Your task to perform on an android device: Add "razer blackwidow" to the cart on bestbuy.com, then select checkout. Image 0: 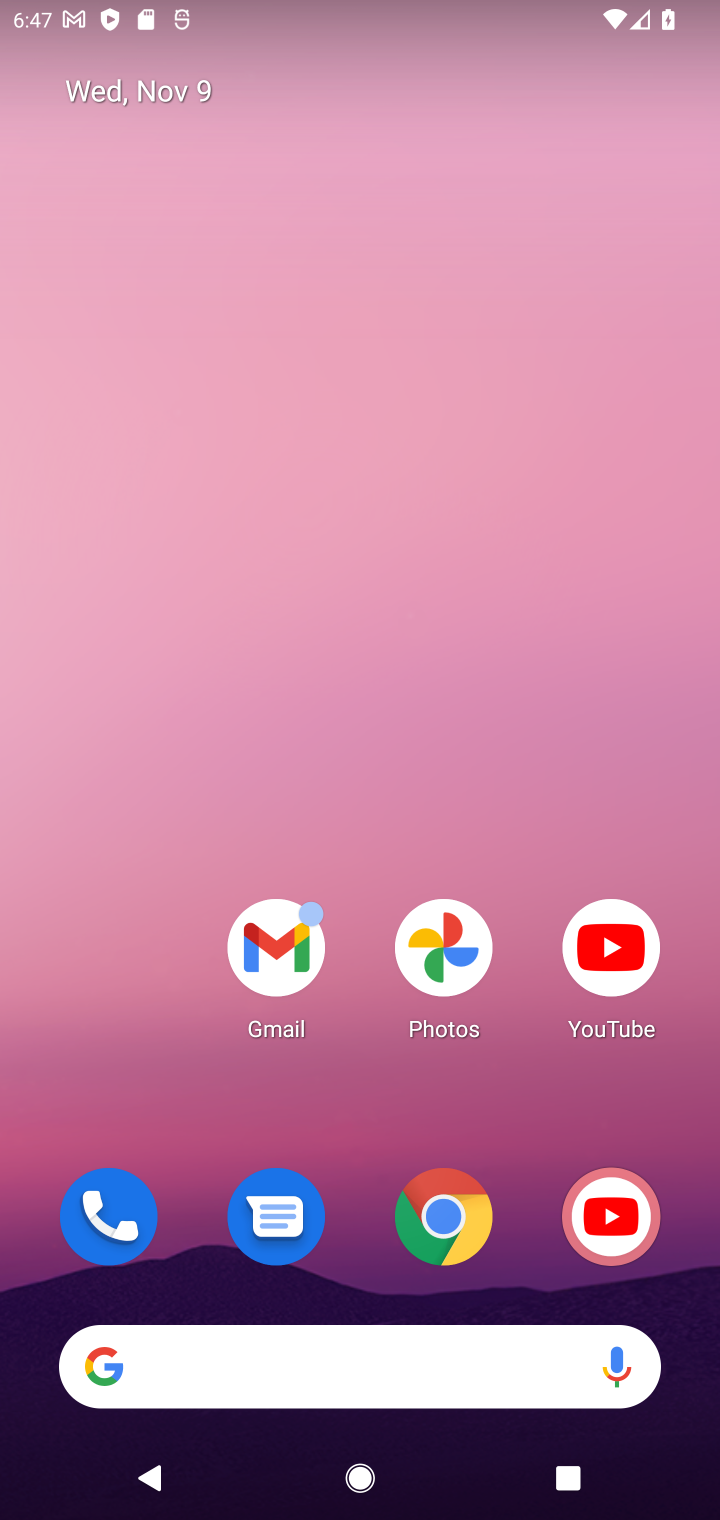
Step 0: drag from (387, 560) to (394, 107)
Your task to perform on an android device: Add "razer blackwidow" to the cart on bestbuy.com, then select checkout. Image 1: 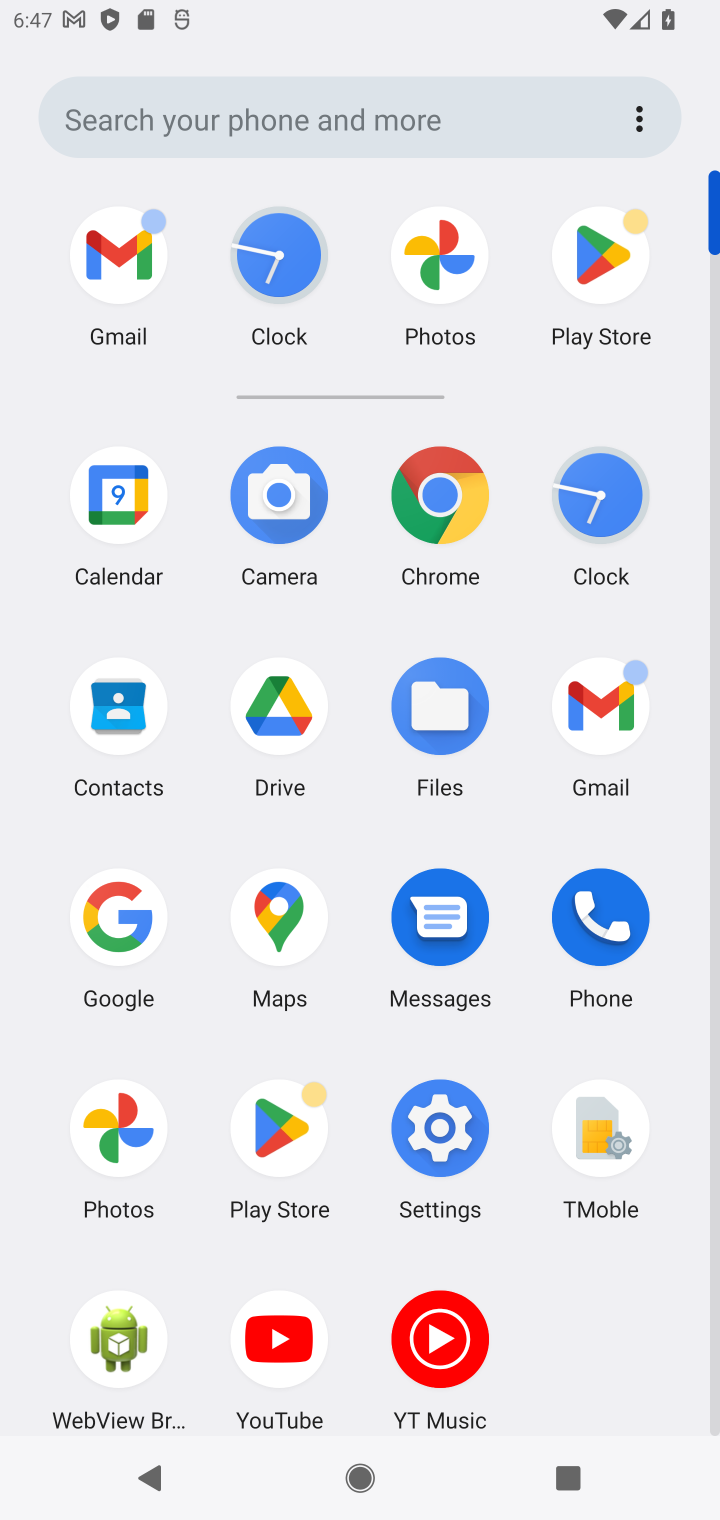
Step 1: click (434, 497)
Your task to perform on an android device: Add "razer blackwidow" to the cart on bestbuy.com, then select checkout. Image 2: 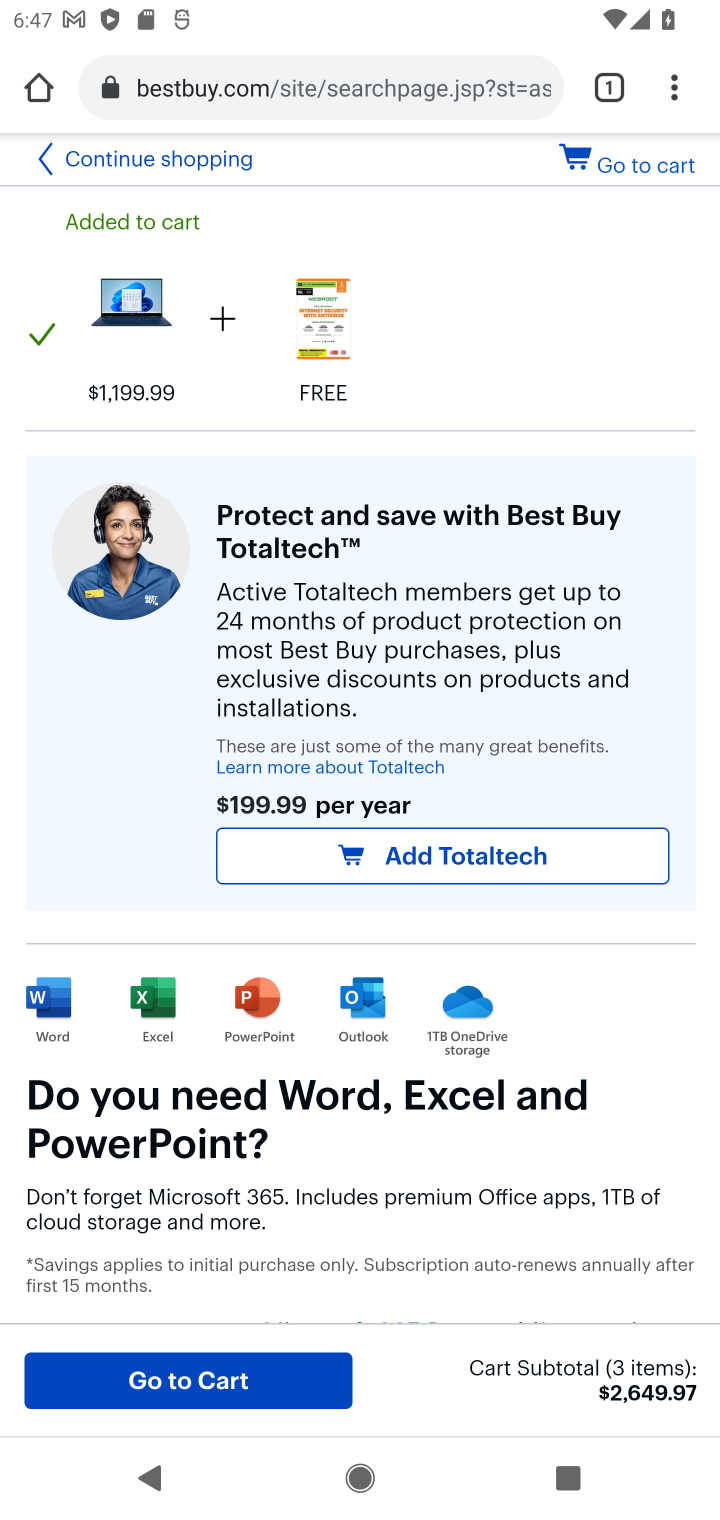
Step 2: click (226, 86)
Your task to perform on an android device: Add "razer blackwidow" to the cart on bestbuy.com, then select checkout. Image 3: 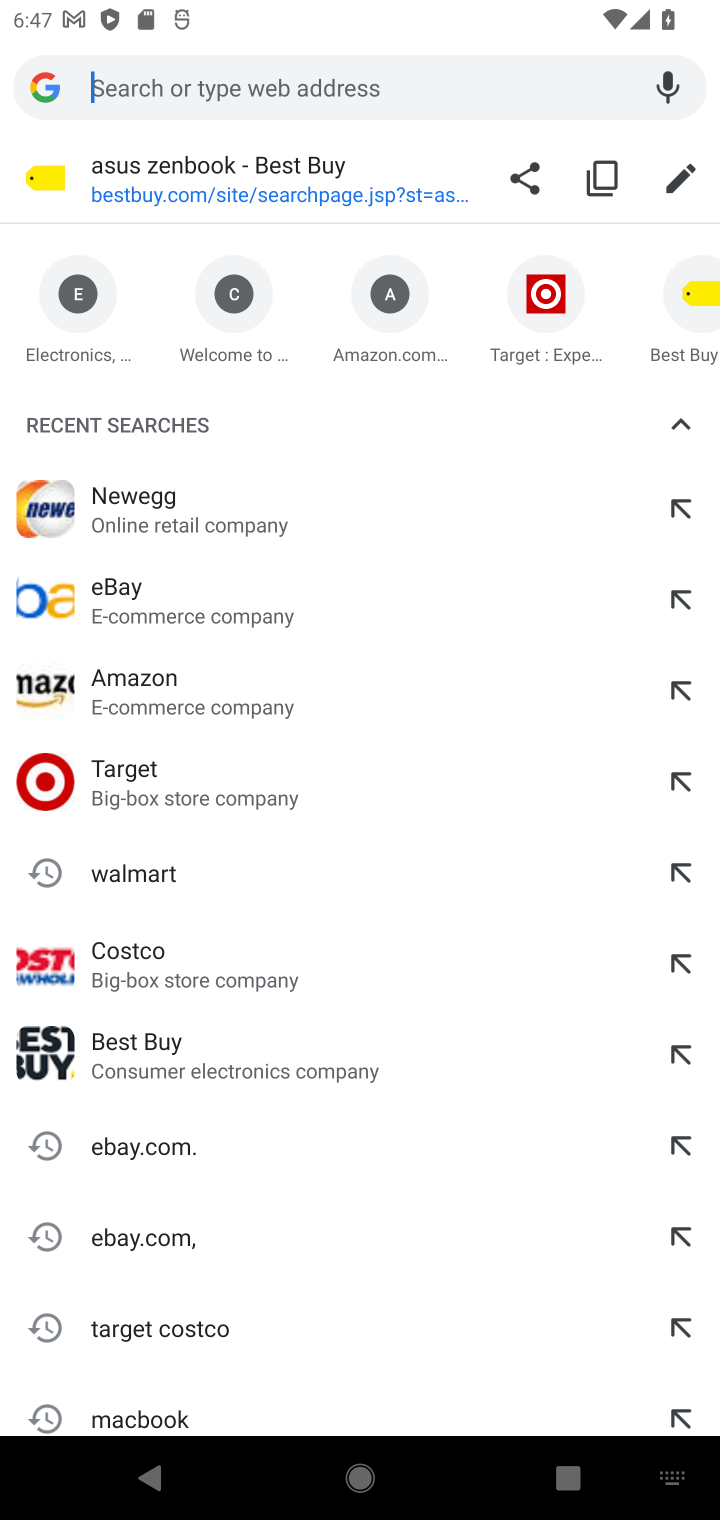
Step 3: type "bestbuy.com"
Your task to perform on an android device: Add "razer blackwidow" to the cart on bestbuy.com, then select checkout. Image 4: 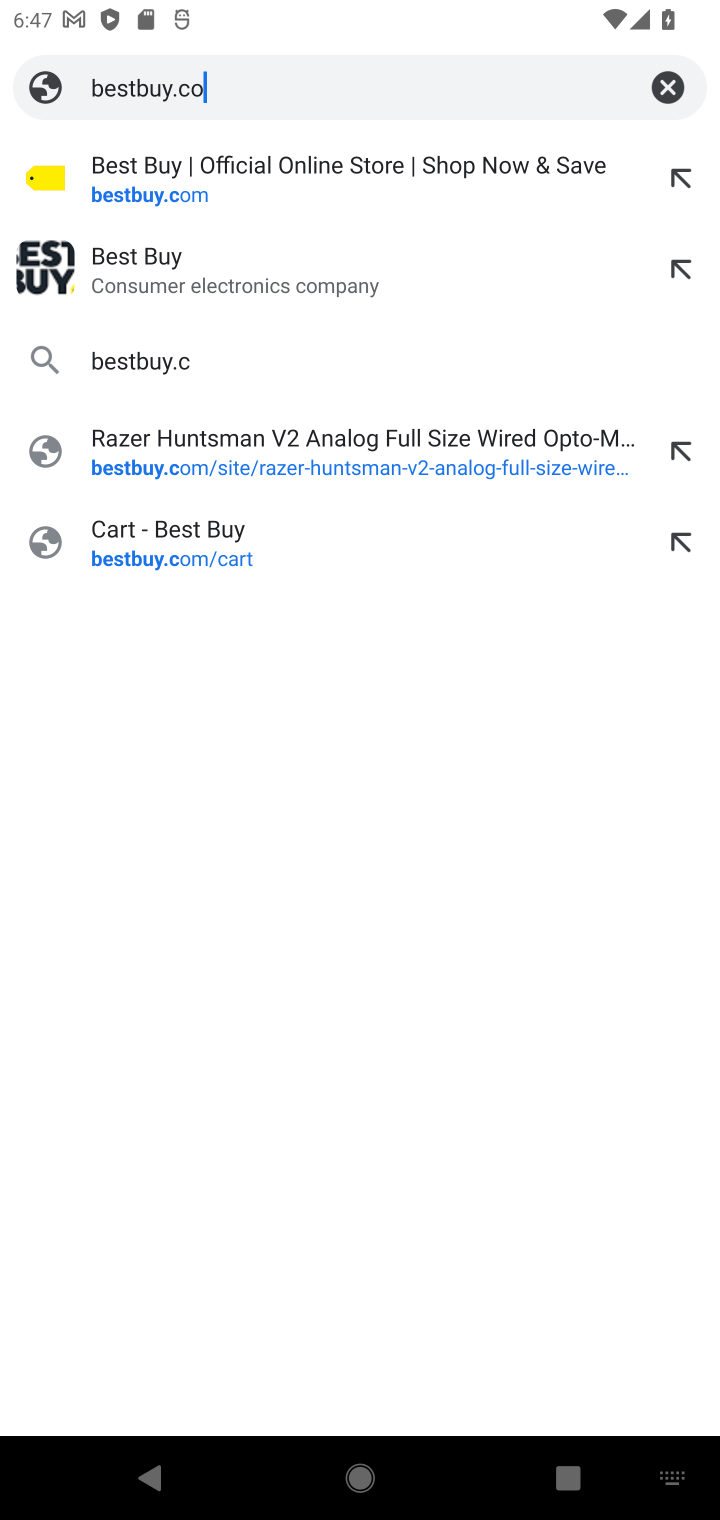
Step 4: press enter
Your task to perform on an android device: Add "razer blackwidow" to the cart on bestbuy.com, then select checkout. Image 5: 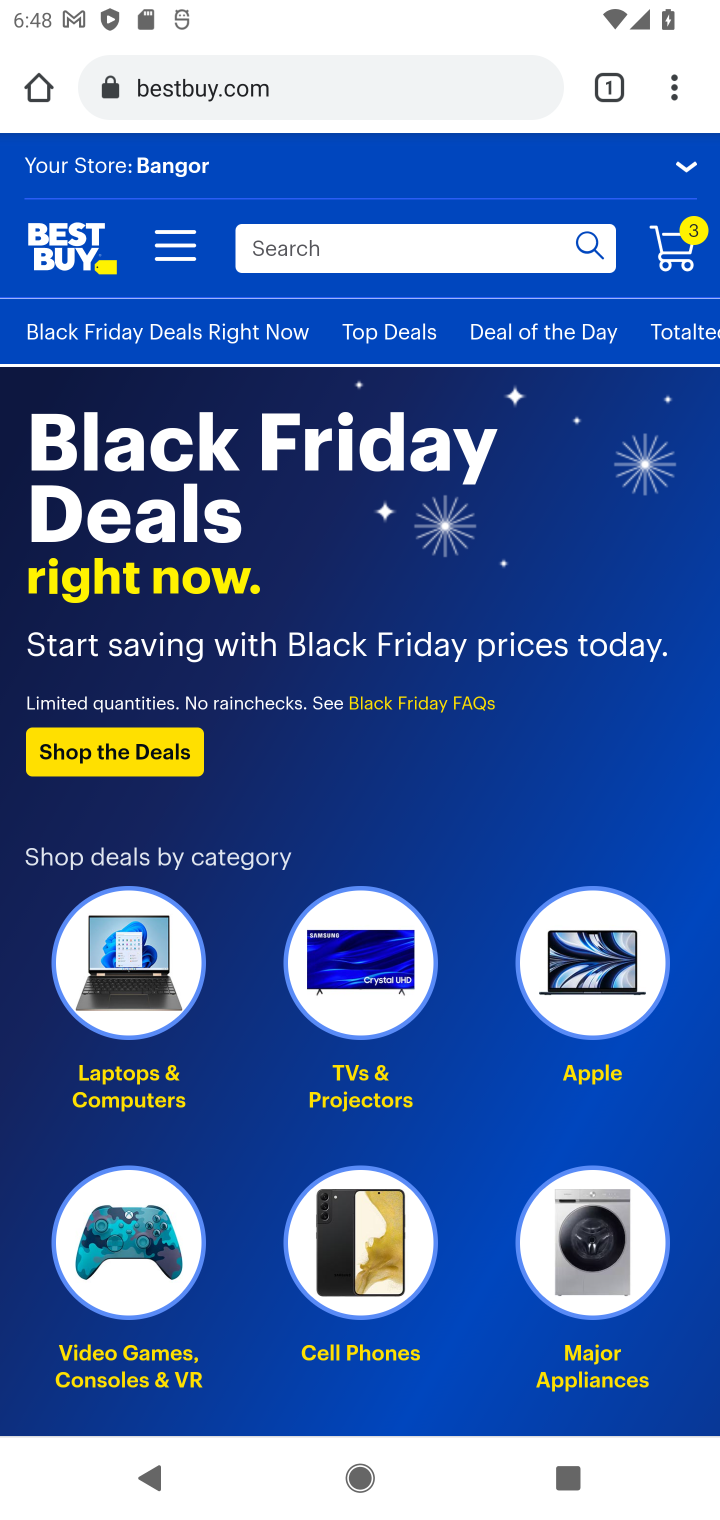
Step 5: click (479, 247)
Your task to perform on an android device: Add "razer blackwidow" to the cart on bestbuy.com, then select checkout. Image 6: 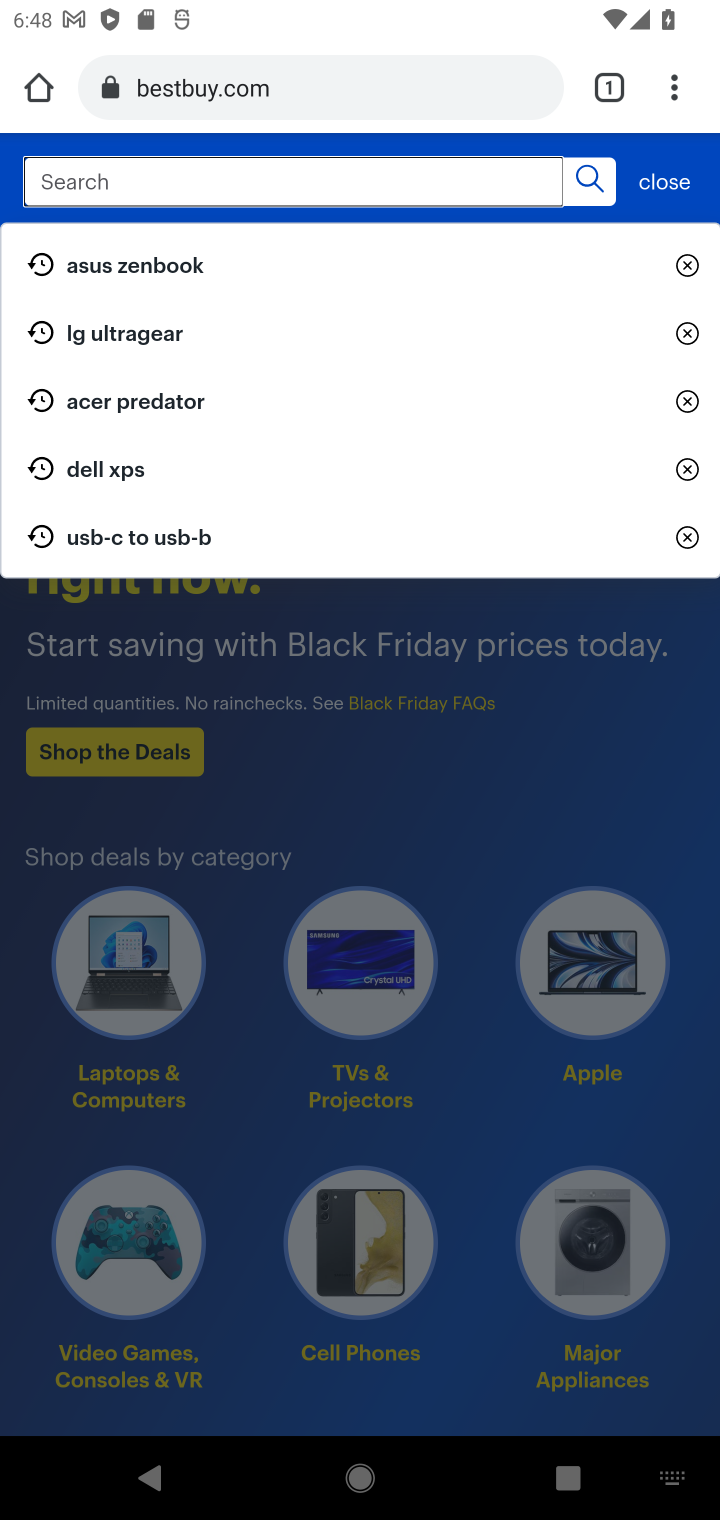
Step 6: type "razer blackwidow"
Your task to perform on an android device: Add "razer blackwidow" to the cart on bestbuy.com, then select checkout. Image 7: 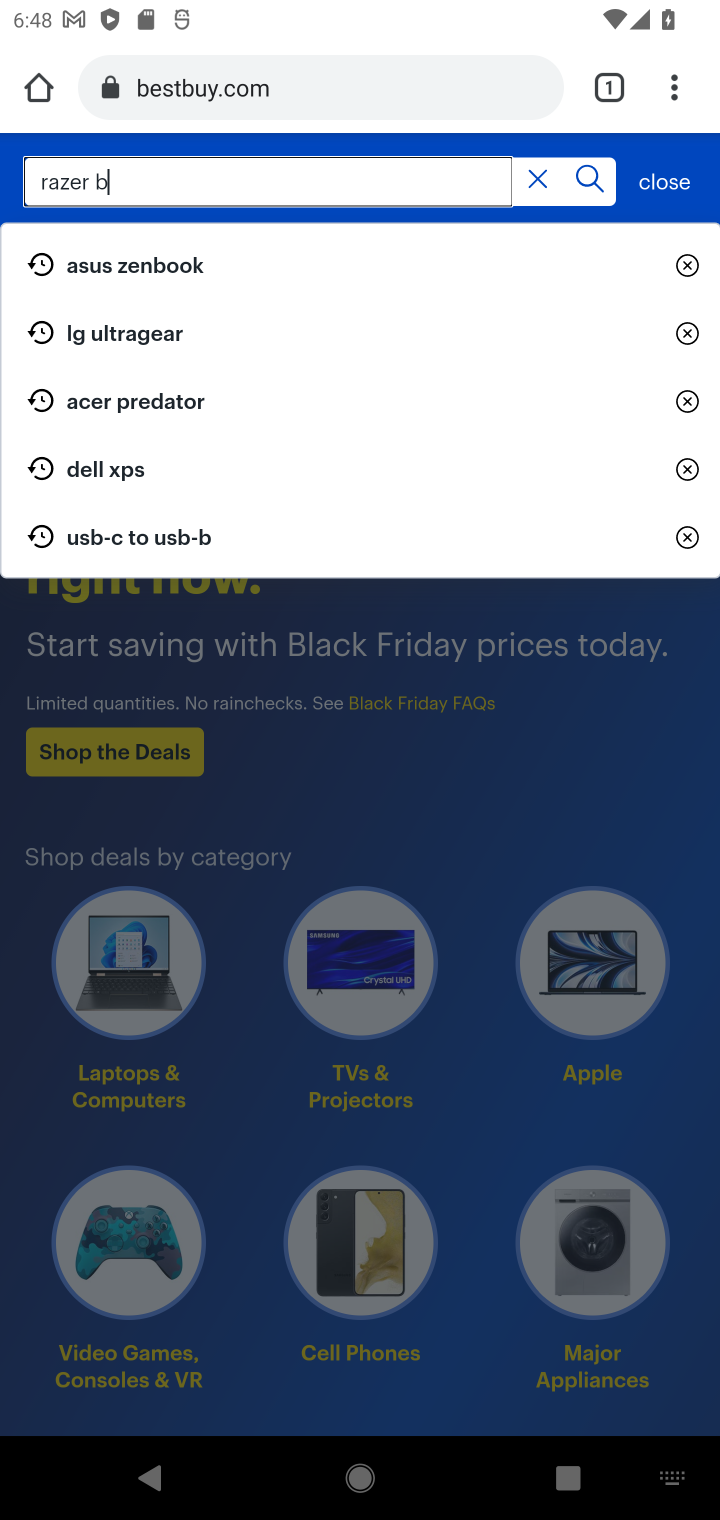
Step 7: press enter
Your task to perform on an android device: Add "razer blackwidow" to the cart on bestbuy.com, then select checkout. Image 8: 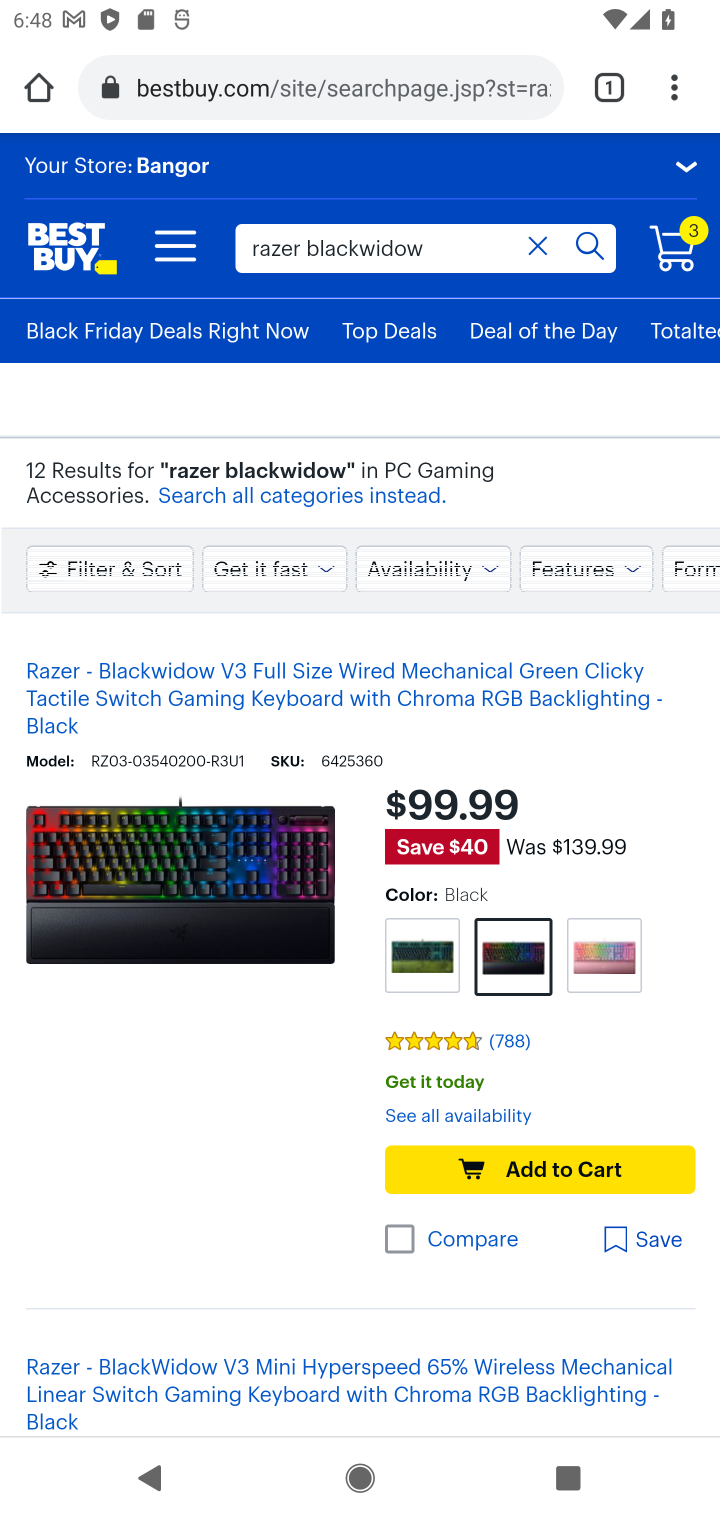
Step 8: click (605, 1168)
Your task to perform on an android device: Add "razer blackwidow" to the cart on bestbuy.com, then select checkout. Image 9: 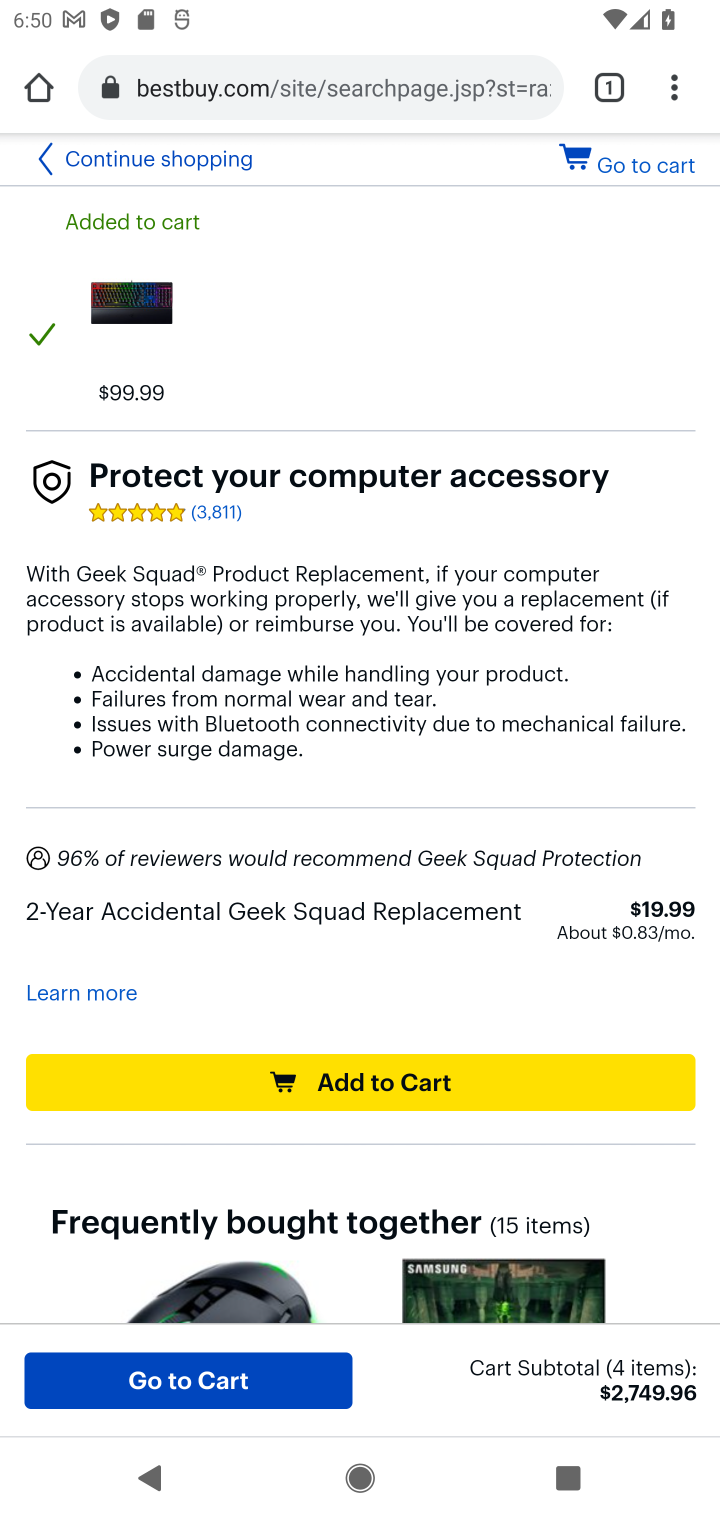
Step 9: drag from (297, 564) to (407, 1228)
Your task to perform on an android device: Add "razer blackwidow" to the cart on bestbuy.com, then select checkout. Image 10: 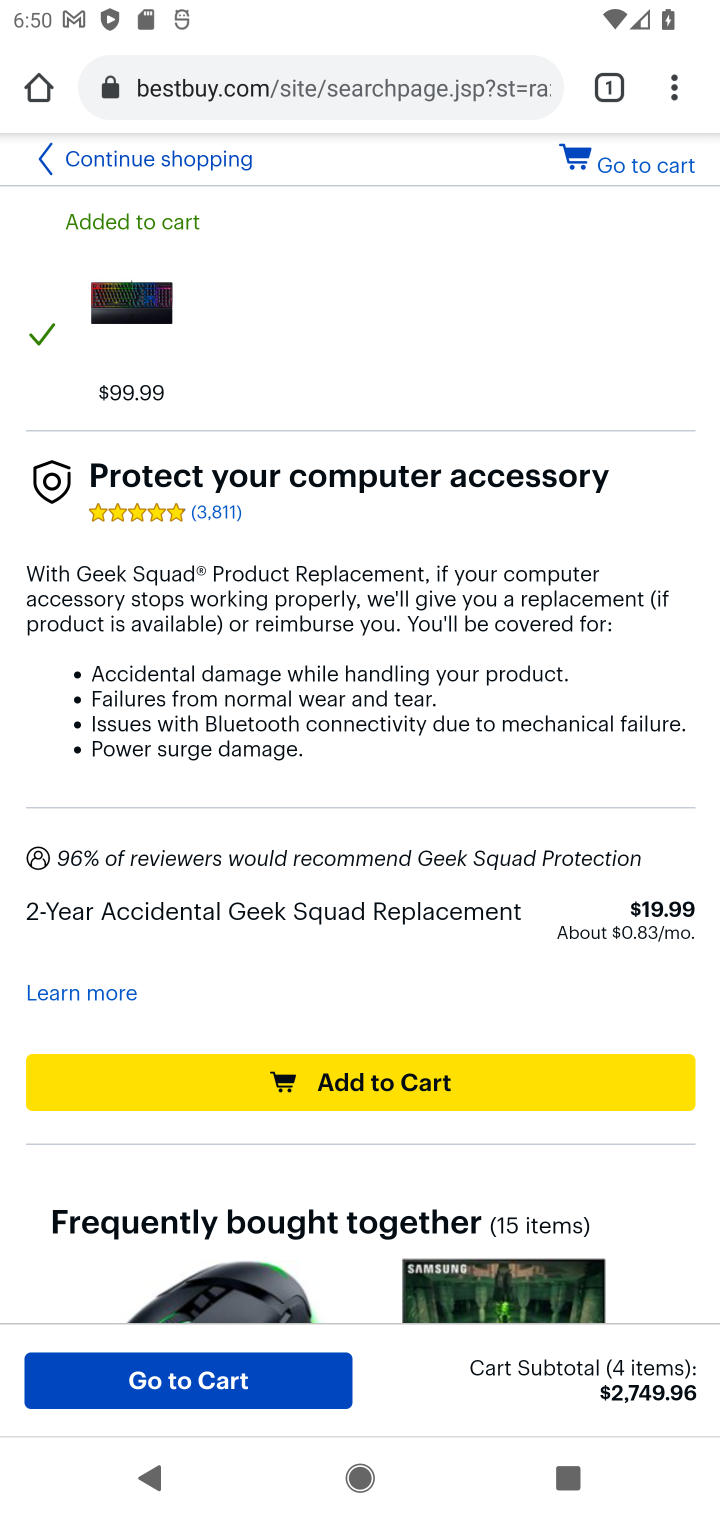
Step 10: drag from (384, 320) to (475, 1169)
Your task to perform on an android device: Add "razer blackwidow" to the cart on bestbuy.com, then select checkout. Image 11: 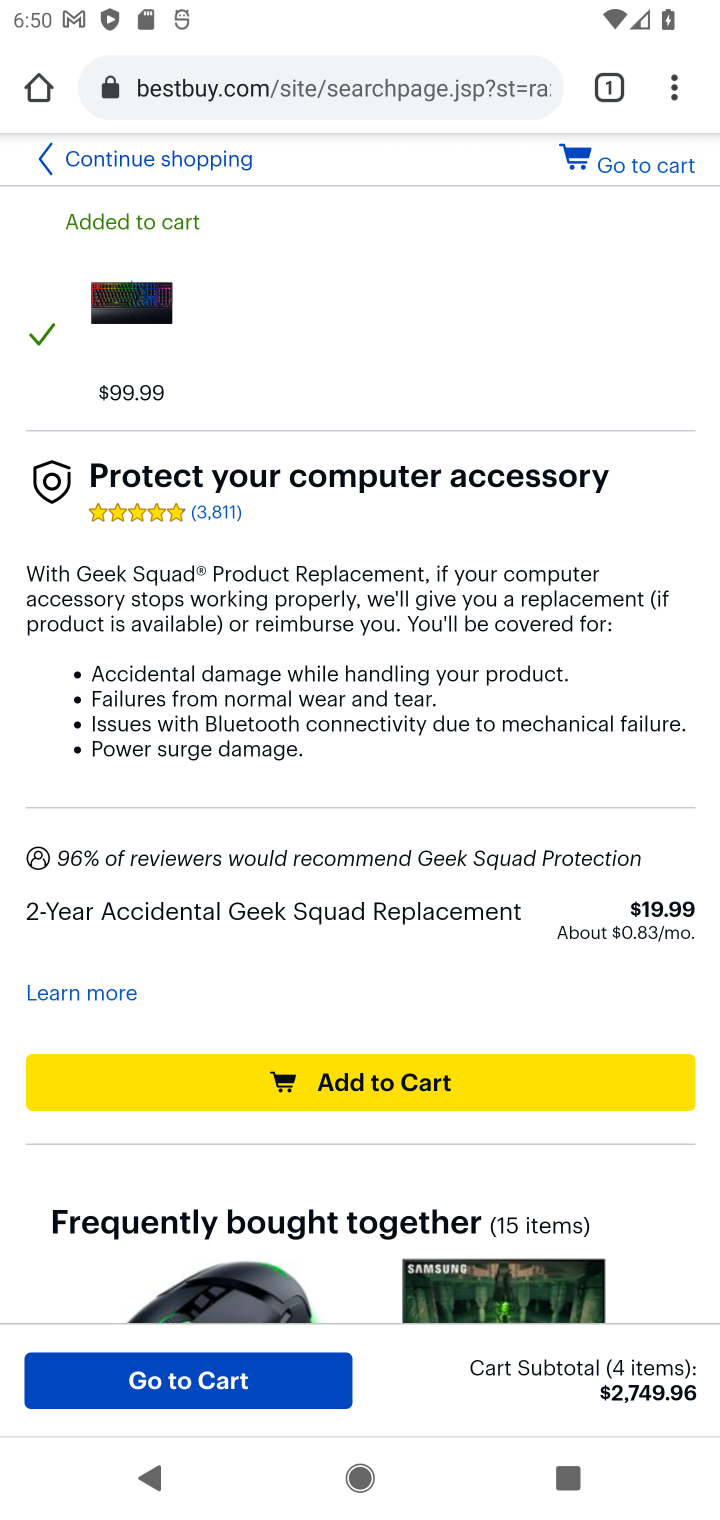
Step 11: click (220, 1366)
Your task to perform on an android device: Add "razer blackwidow" to the cart on bestbuy.com, then select checkout. Image 12: 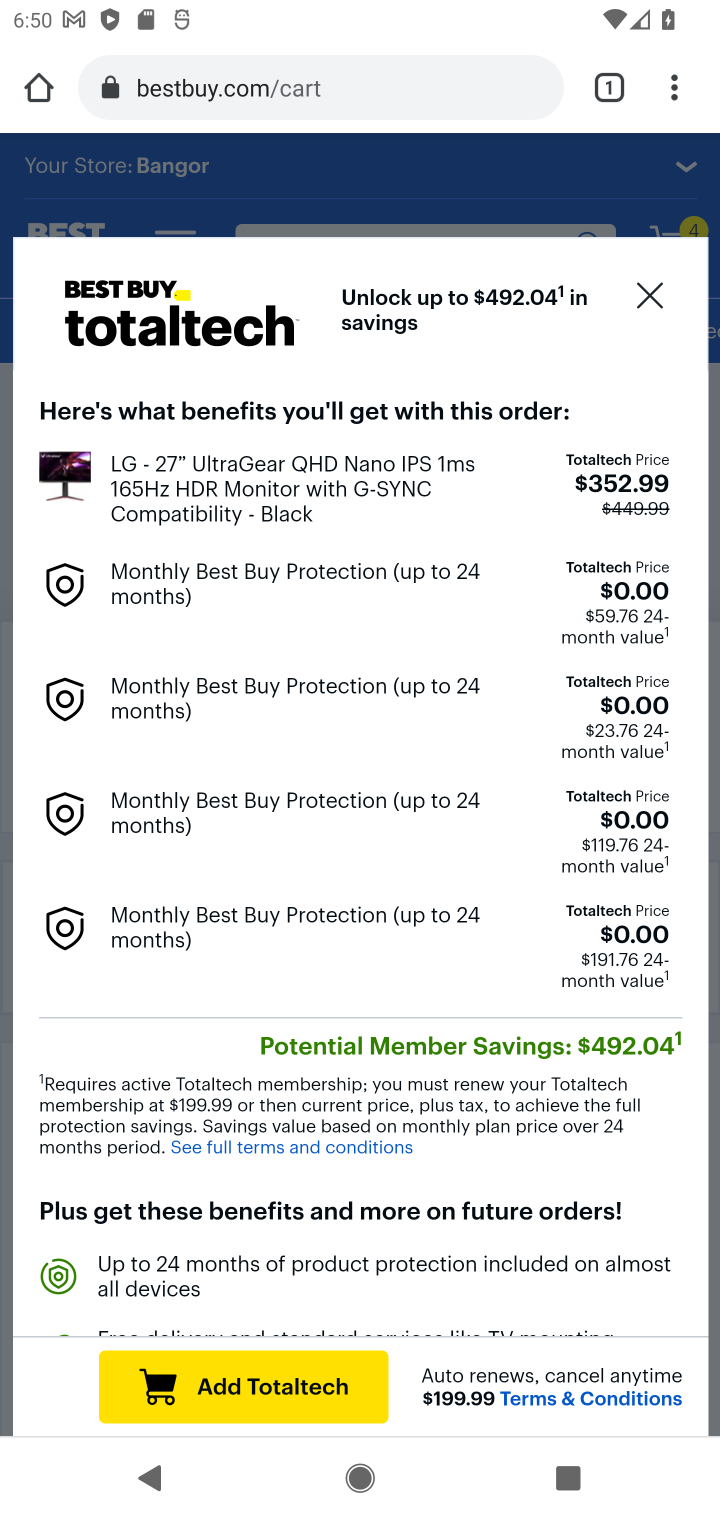
Step 12: click (648, 307)
Your task to perform on an android device: Add "razer blackwidow" to the cart on bestbuy.com, then select checkout. Image 13: 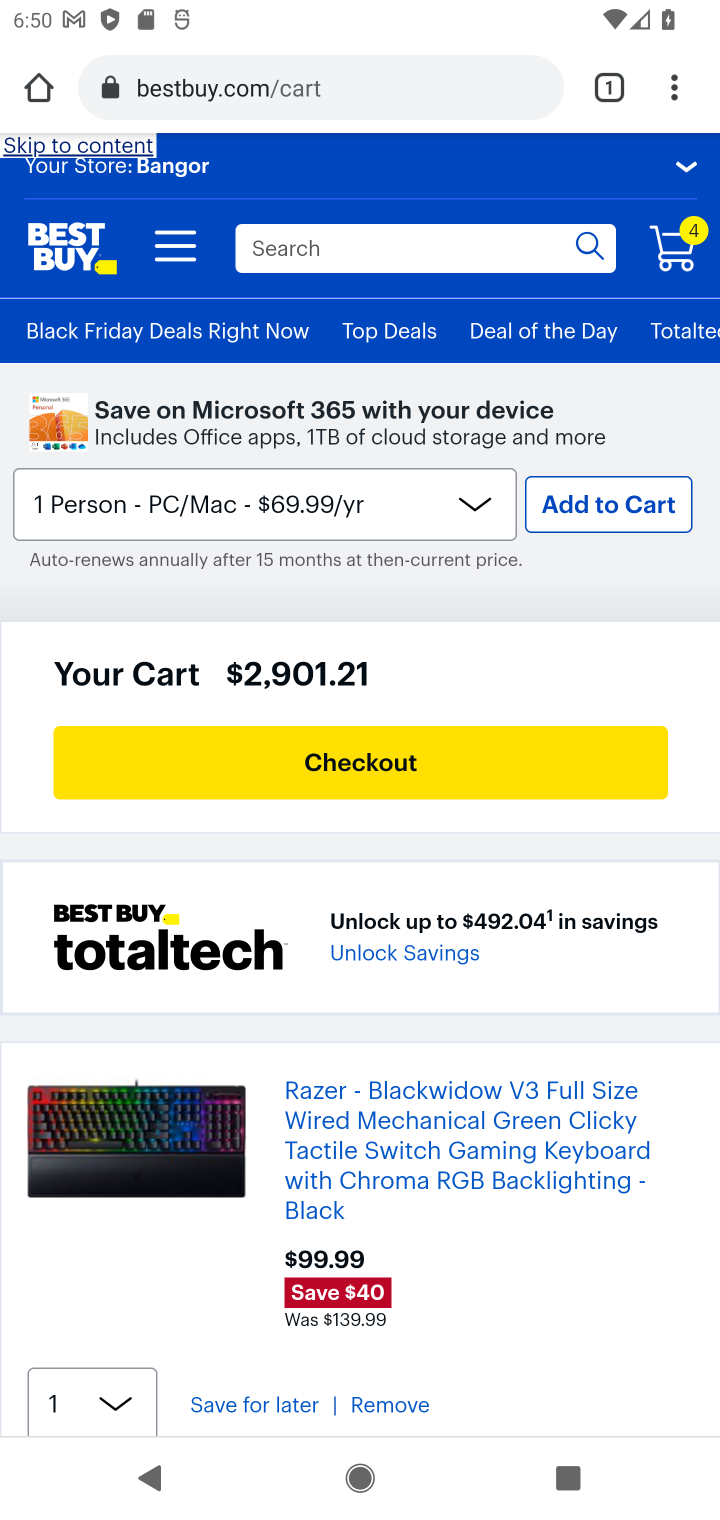
Step 13: click (407, 764)
Your task to perform on an android device: Add "razer blackwidow" to the cart on bestbuy.com, then select checkout. Image 14: 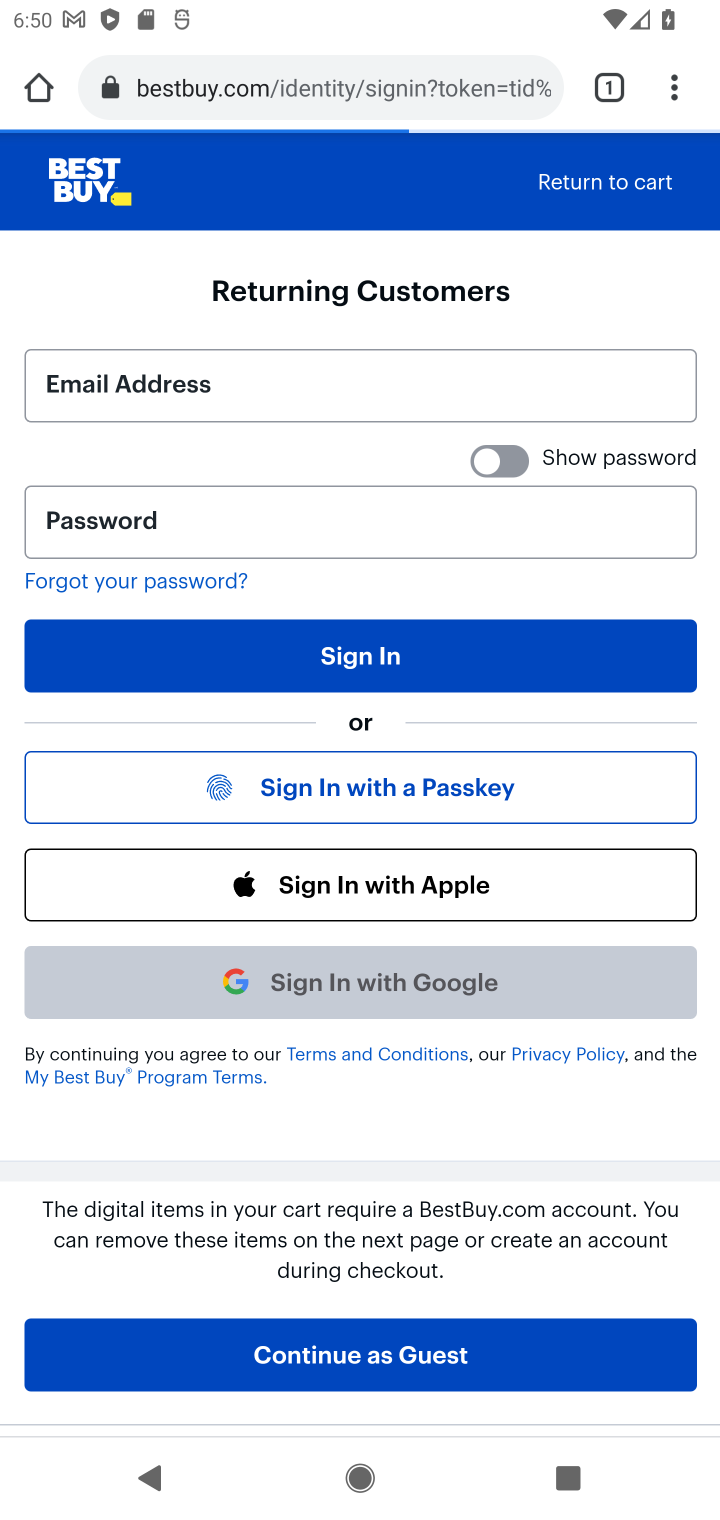
Step 14: task complete